Your task to perform on an android device: Go to Reddit.com Image 0: 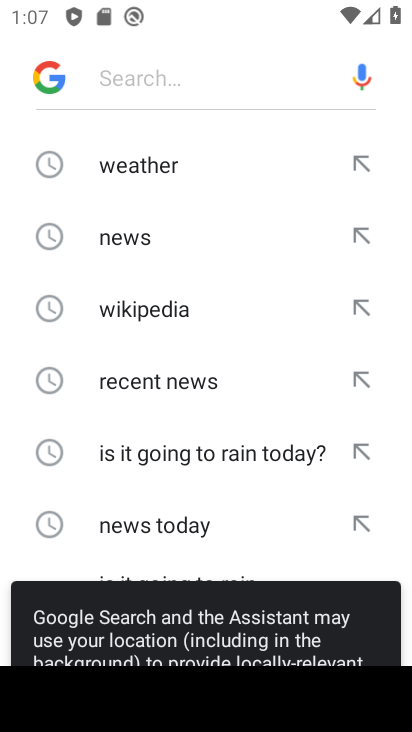
Step 0: press home button
Your task to perform on an android device: Go to Reddit.com Image 1: 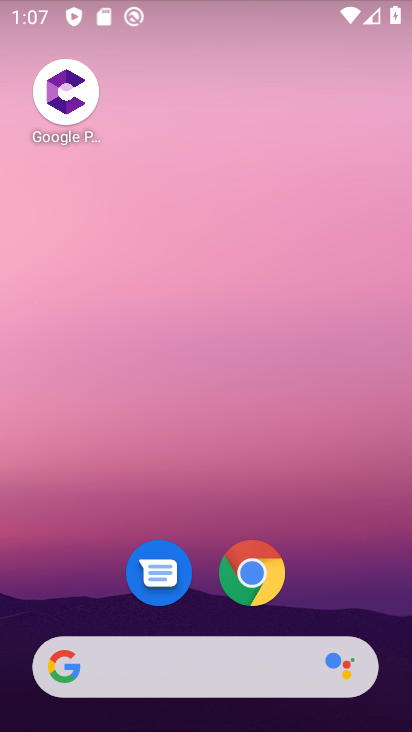
Step 1: drag from (362, 583) to (208, 26)
Your task to perform on an android device: Go to Reddit.com Image 2: 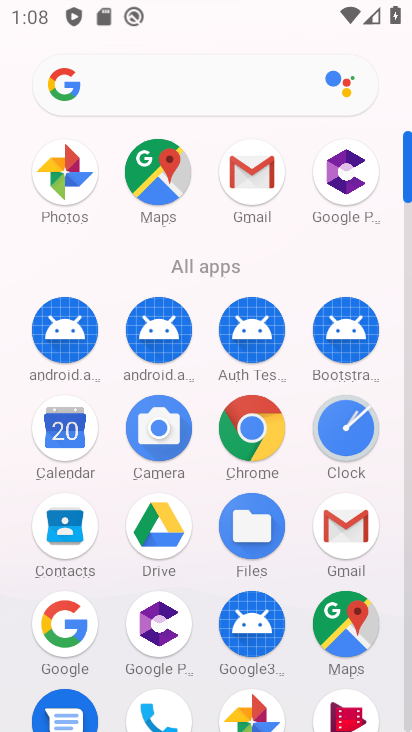
Step 2: click (65, 621)
Your task to perform on an android device: Go to Reddit.com Image 3: 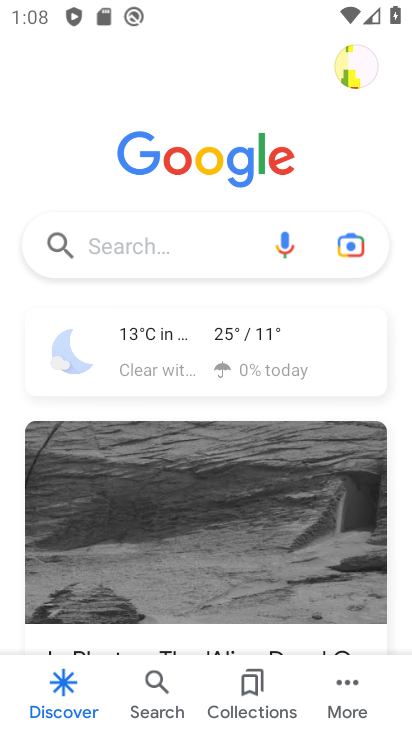
Step 3: click (176, 230)
Your task to perform on an android device: Go to Reddit.com Image 4: 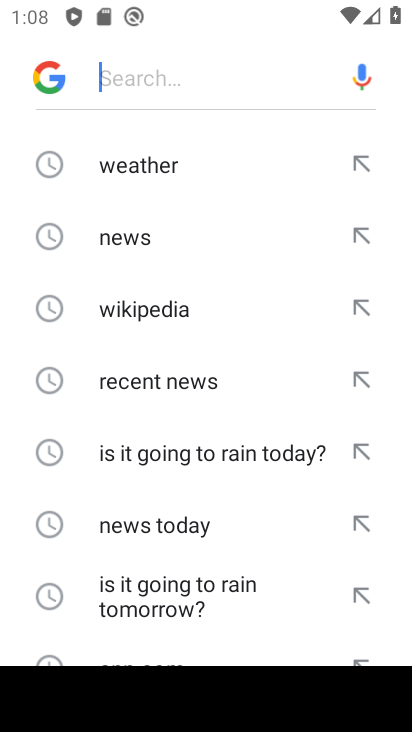
Step 4: drag from (154, 599) to (214, 104)
Your task to perform on an android device: Go to Reddit.com Image 5: 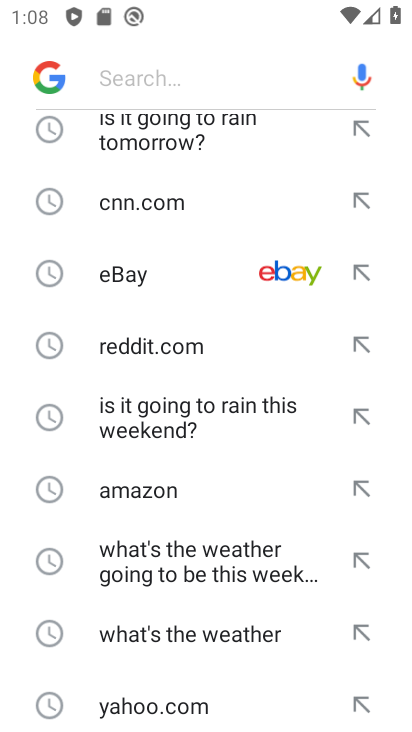
Step 5: click (171, 363)
Your task to perform on an android device: Go to Reddit.com Image 6: 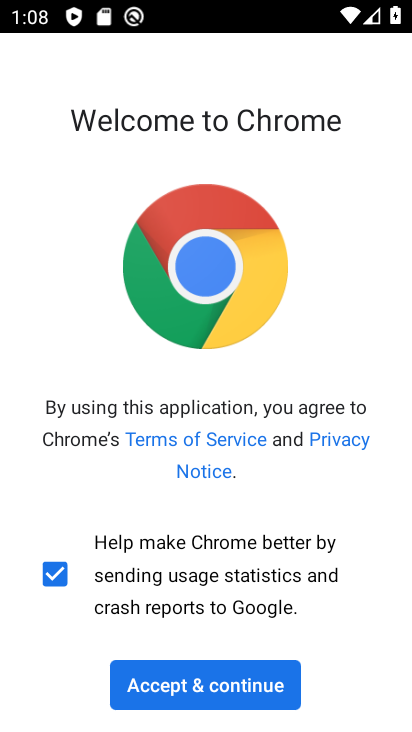
Step 6: click (218, 682)
Your task to perform on an android device: Go to Reddit.com Image 7: 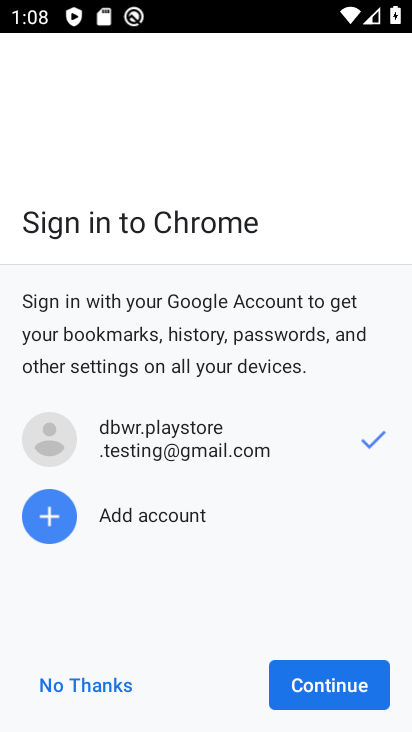
Step 7: click (319, 688)
Your task to perform on an android device: Go to Reddit.com Image 8: 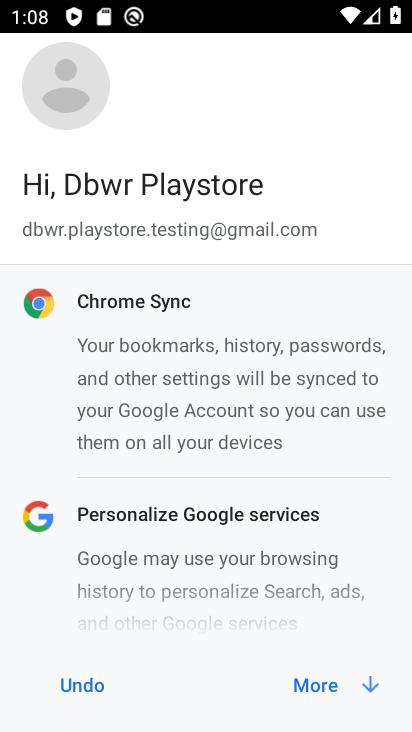
Step 8: click (319, 688)
Your task to perform on an android device: Go to Reddit.com Image 9: 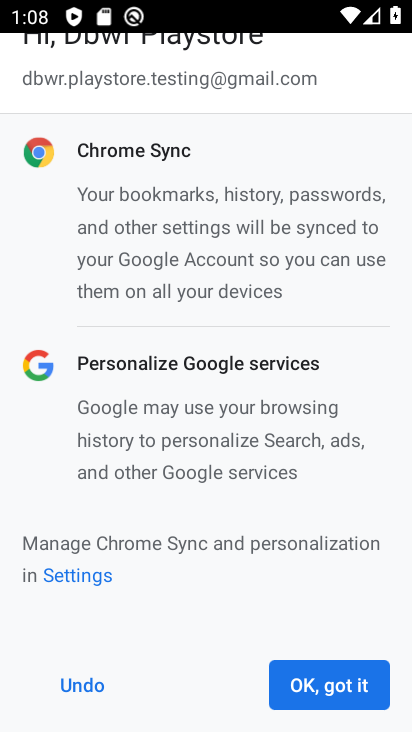
Step 9: click (319, 688)
Your task to perform on an android device: Go to Reddit.com Image 10: 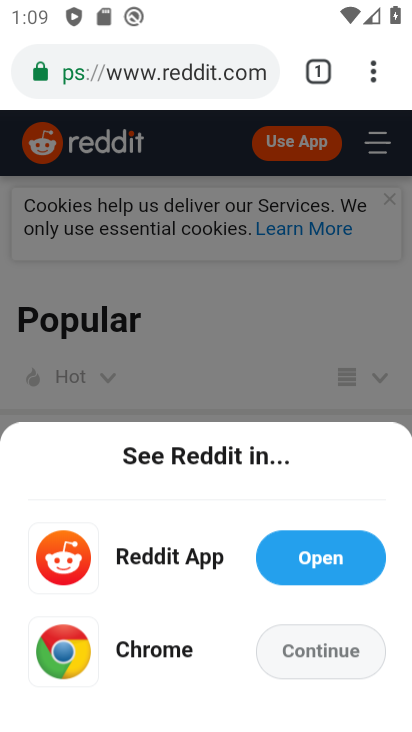
Step 10: task complete